Your task to perform on an android device: Search for nike dri-fit shirts on Nike Image 0: 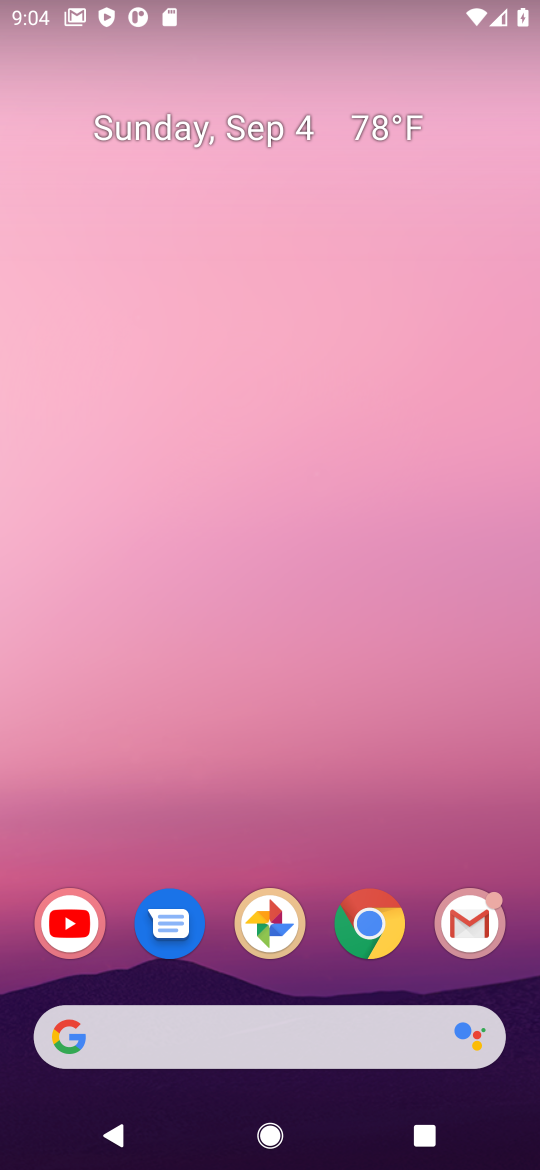
Step 0: click (113, 1039)
Your task to perform on an android device: Search for nike dri-fit shirts on Nike Image 1: 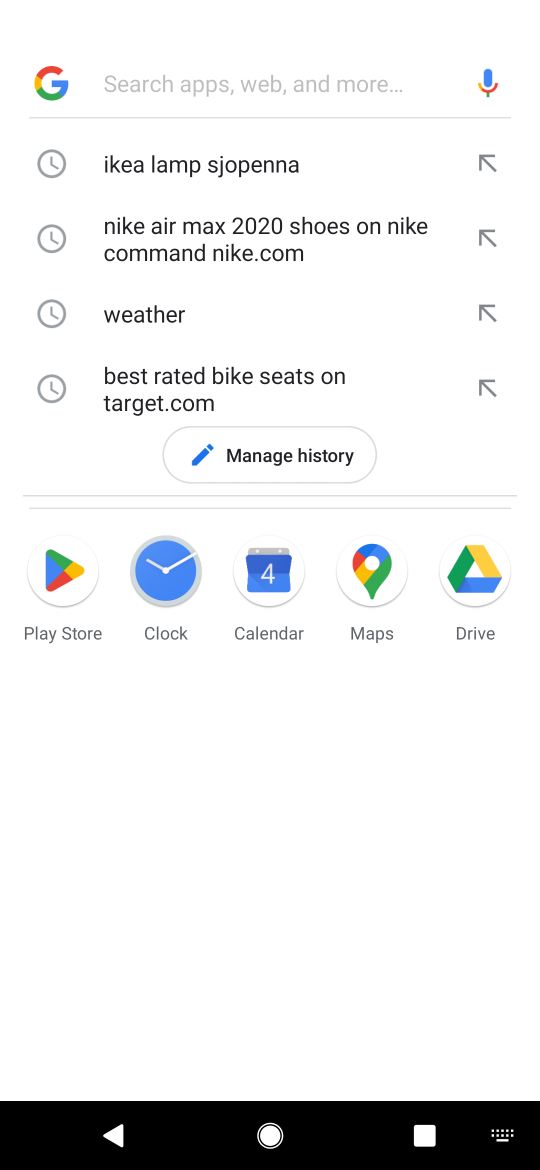
Step 1: type "nike dri-fit shirts on Nike"
Your task to perform on an android device: Search for nike dri-fit shirts on Nike Image 2: 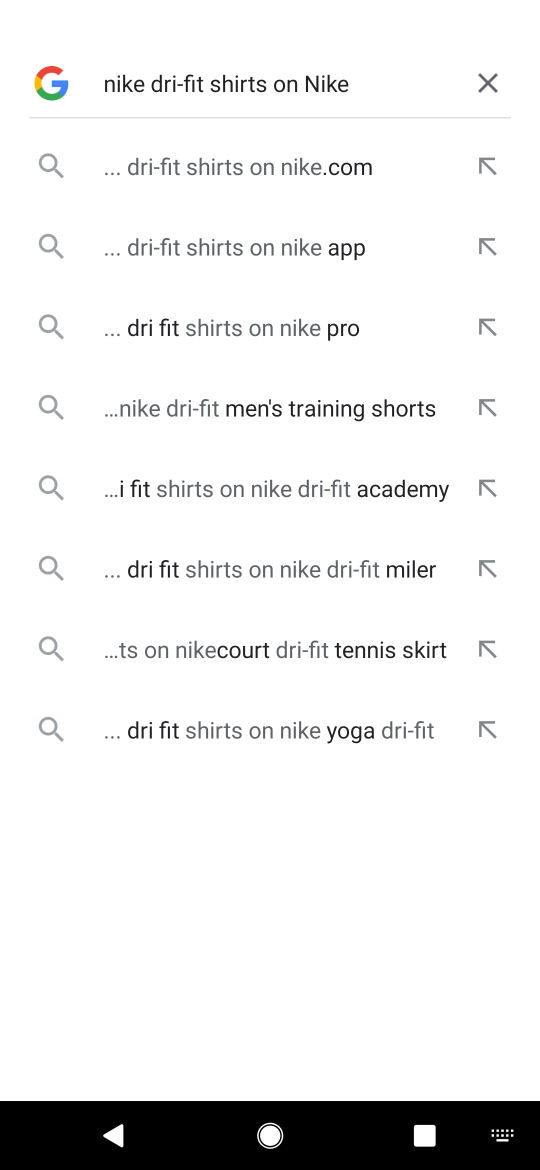
Step 2: type ""
Your task to perform on an android device: Search for nike dri-fit shirts on Nike Image 3: 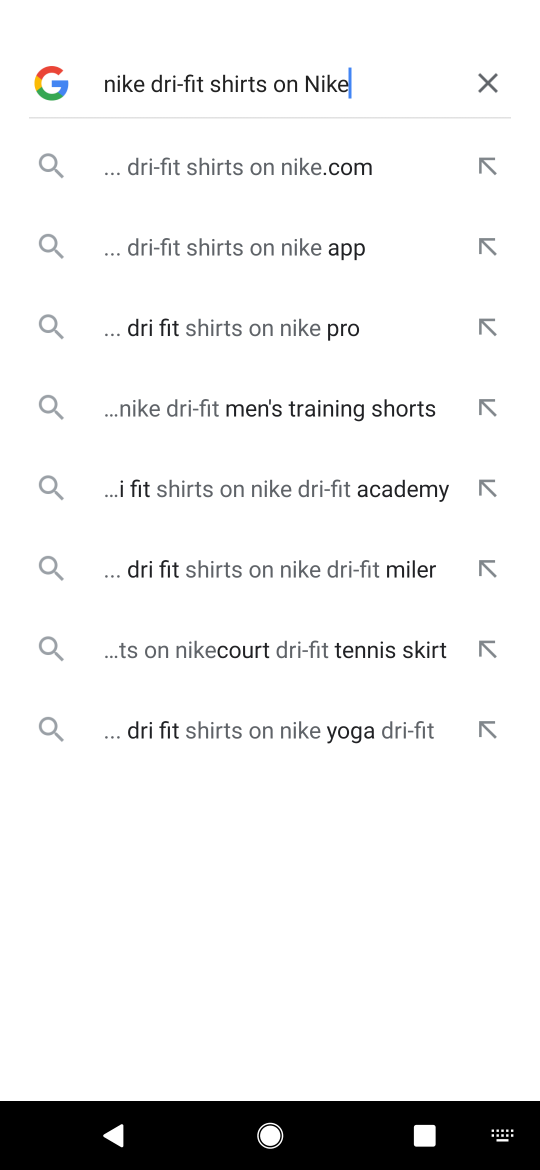
Step 3: type ""
Your task to perform on an android device: Search for nike dri-fit shirts on Nike Image 4: 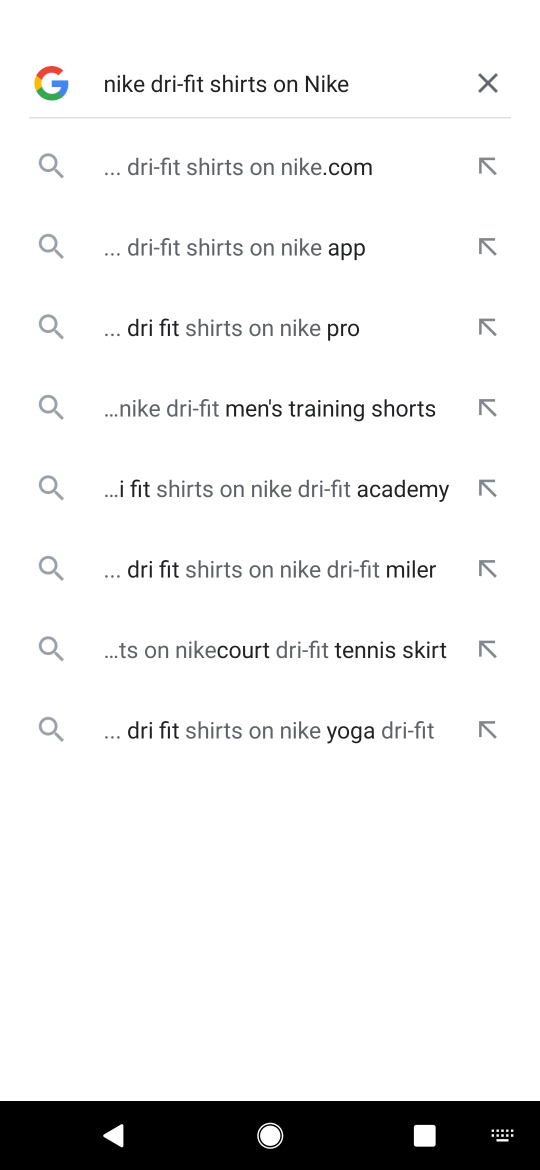
Step 4: task complete